Your task to perform on an android device: allow cookies in the chrome app Image 0: 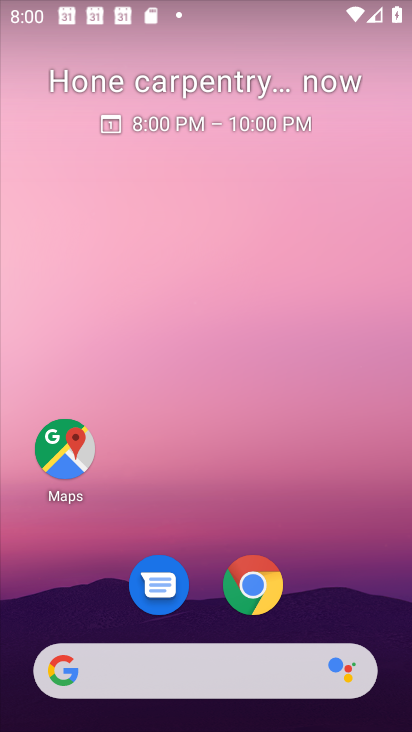
Step 0: click (254, 577)
Your task to perform on an android device: allow cookies in the chrome app Image 1: 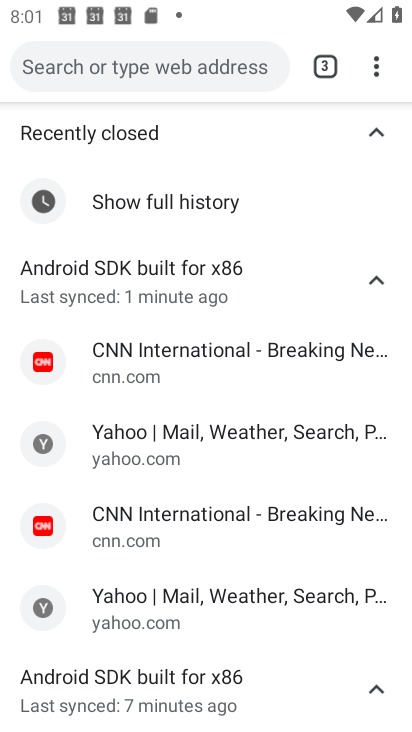
Step 1: click (375, 71)
Your task to perform on an android device: allow cookies in the chrome app Image 2: 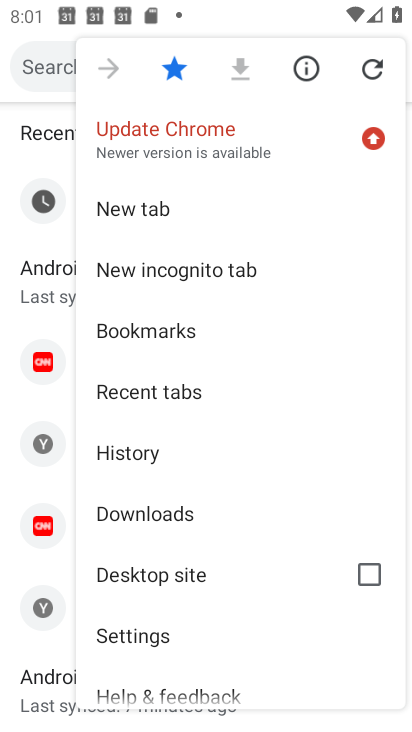
Step 2: click (167, 635)
Your task to perform on an android device: allow cookies in the chrome app Image 3: 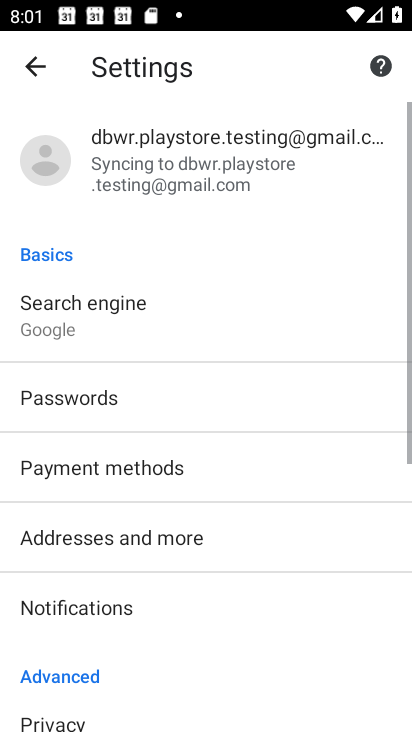
Step 3: drag from (218, 622) to (282, 278)
Your task to perform on an android device: allow cookies in the chrome app Image 4: 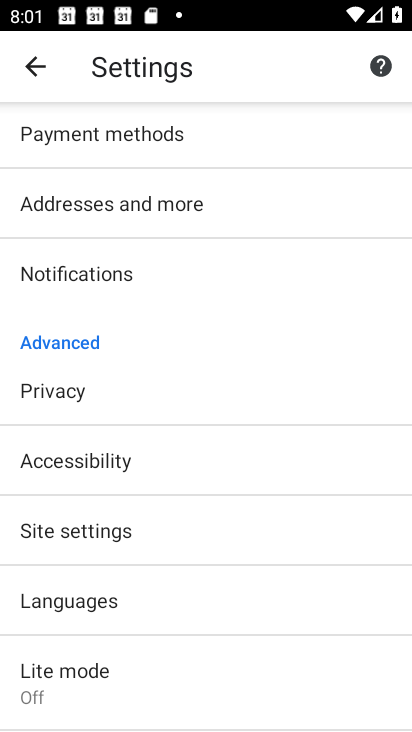
Step 4: click (168, 524)
Your task to perform on an android device: allow cookies in the chrome app Image 5: 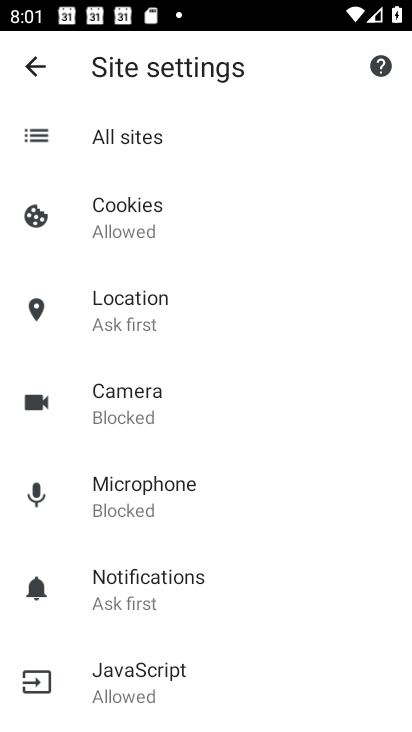
Step 5: click (190, 199)
Your task to perform on an android device: allow cookies in the chrome app Image 6: 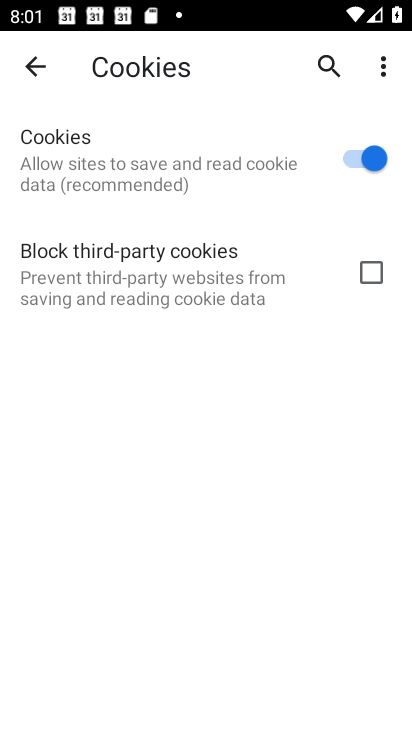
Step 6: task complete